Your task to perform on an android device: When is my next meeting? Image 0: 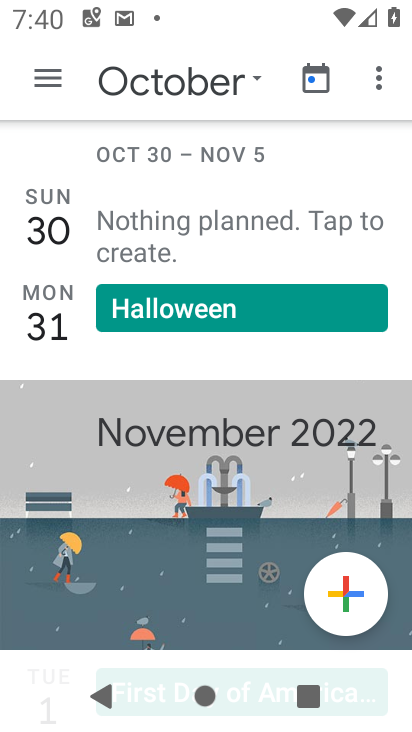
Step 0: press home button
Your task to perform on an android device: When is my next meeting? Image 1: 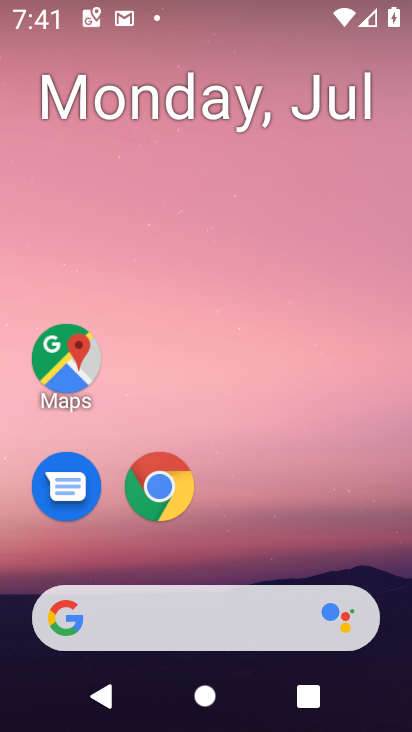
Step 1: drag from (319, 545) to (336, 132)
Your task to perform on an android device: When is my next meeting? Image 2: 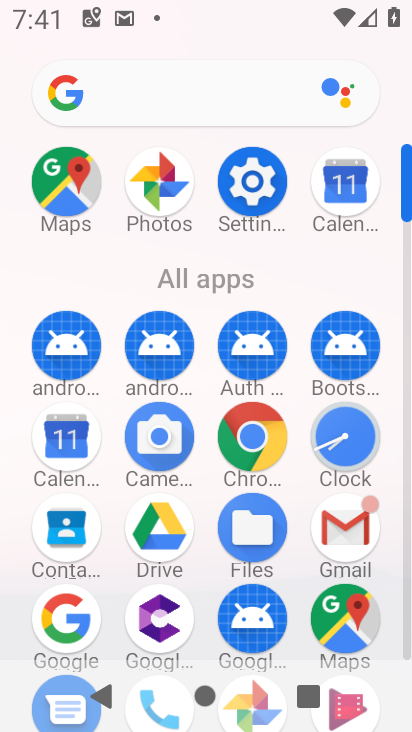
Step 2: click (66, 462)
Your task to perform on an android device: When is my next meeting? Image 3: 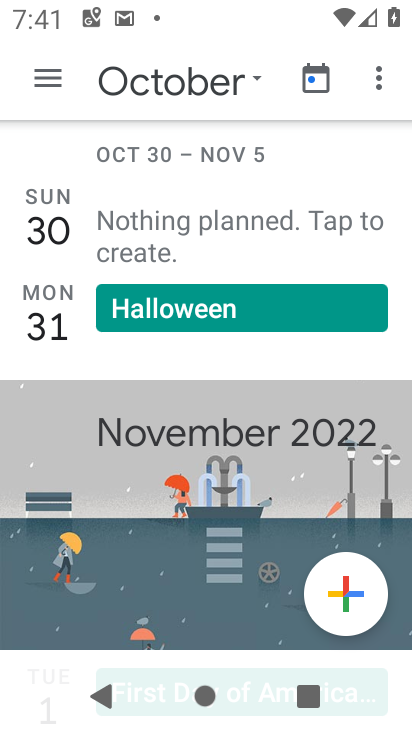
Step 3: task complete